Your task to perform on an android device: Go to display settings Image 0: 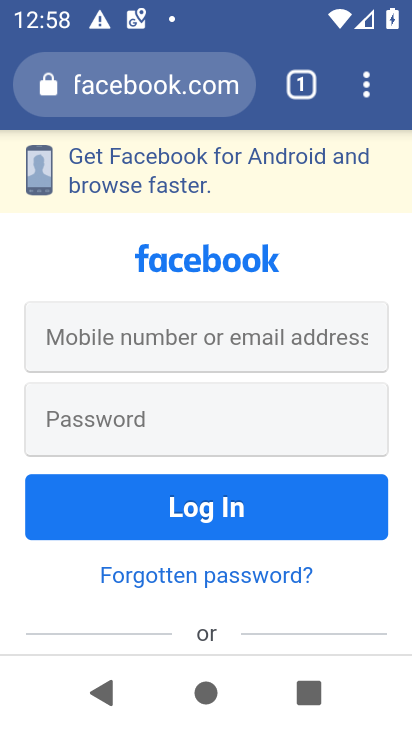
Step 0: press home button
Your task to perform on an android device: Go to display settings Image 1: 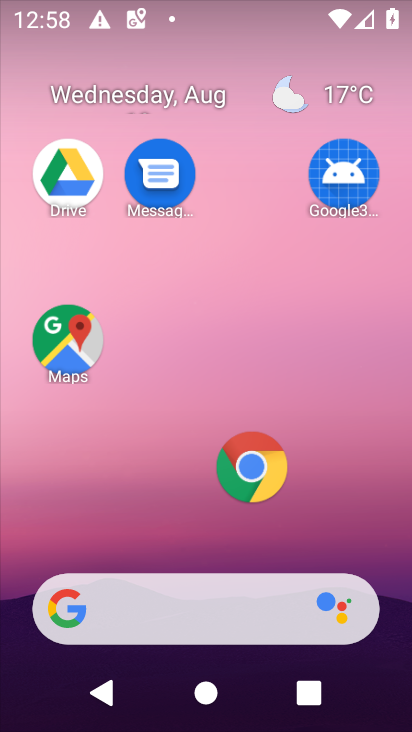
Step 1: drag from (187, 516) to (241, 53)
Your task to perform on an android device: Go to display settings Image 2: 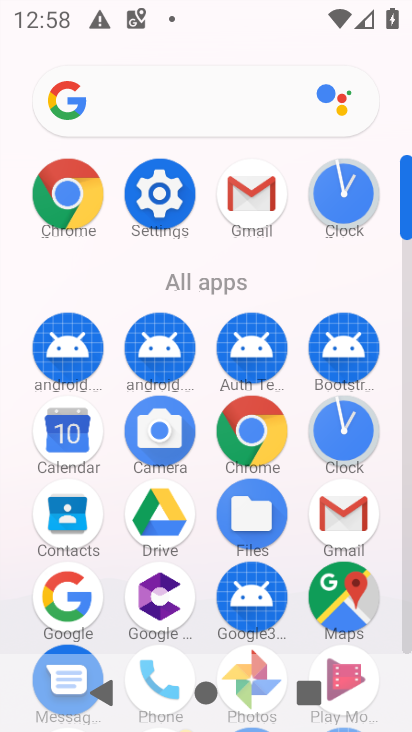
Step 2: click (152, 196)
Your task to perform on an android device: Go to display settings Image 3: 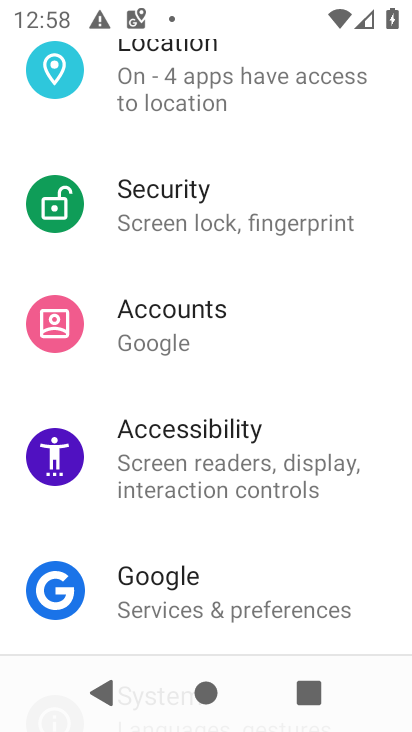
Step 3: drag from (135, 550) to (224, 99)
Your task to perform on an android device: Go to display settings Image 4: 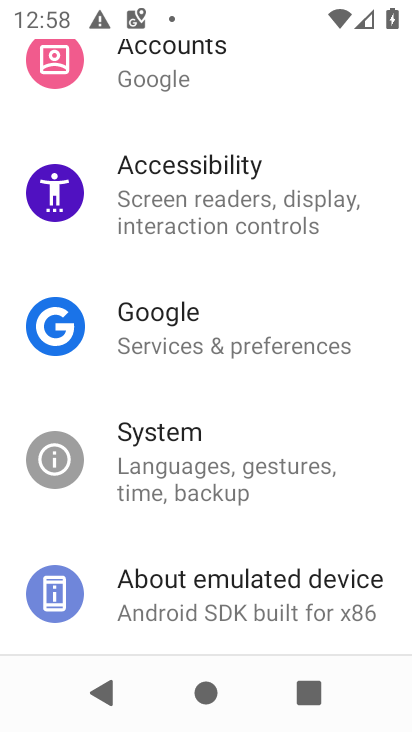
Step 4: drag from (169, 135) to (128, 578)
Your task to perform on an android device: Go to display settings Image 5: 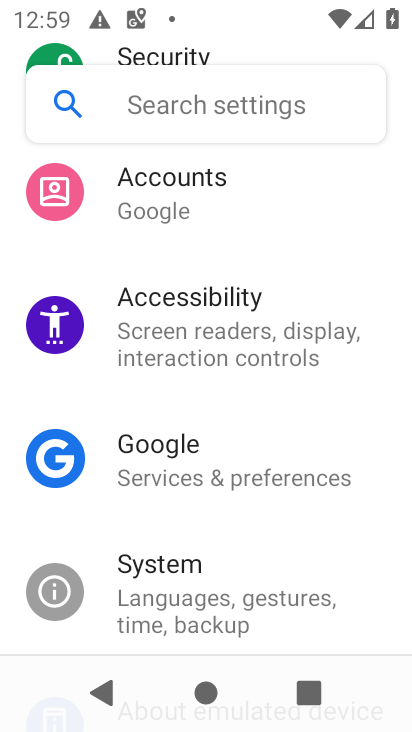
Step 5: drag from (223, 219) to (185, 667)
Your task to perform on an android device: Go to display settings Image 6: 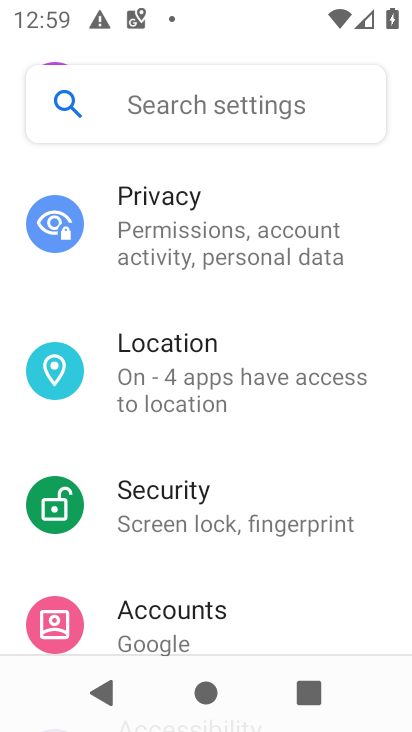
Step 6: drag from (209, 298) to (203, 578)
Your task to perform on an android device: Go to display settings Image 7: 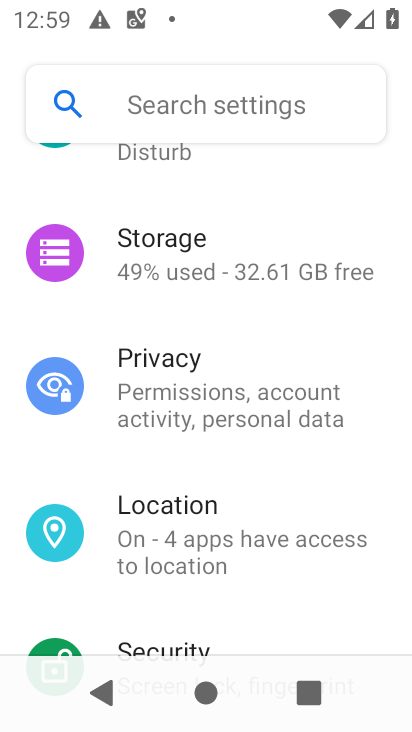
Step 7: drag from (240, 205) to (225, 560)
Your task to perform on an android device: Go to display settings Image 8: 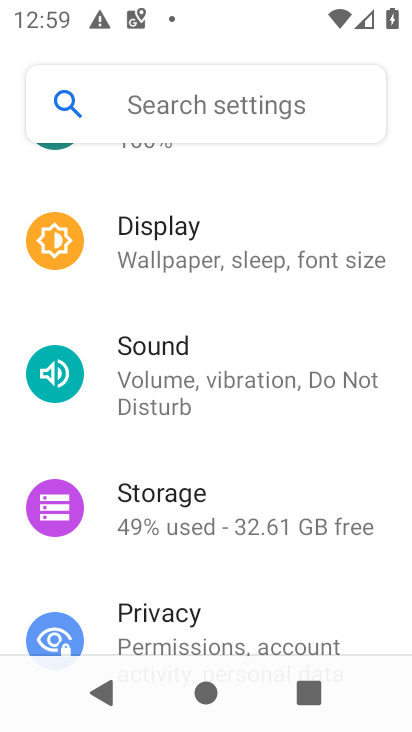
Step 8: click (155, 219)
Your task to perform on an android device: Go to display settings Image 9: 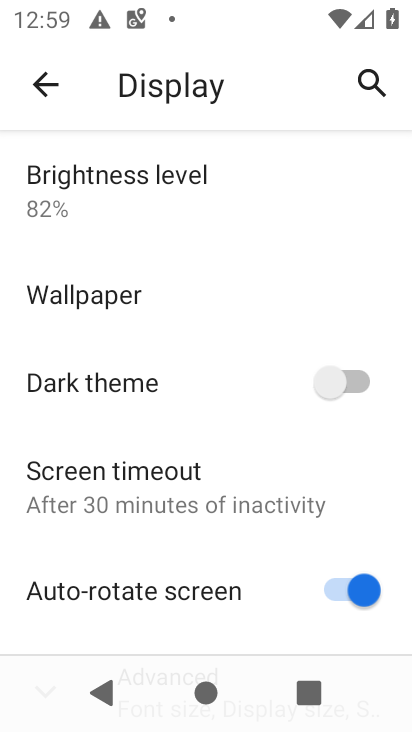
Step 9: task complete